Your task to perform on an android device: turn off translation in the chrome app Image 0: 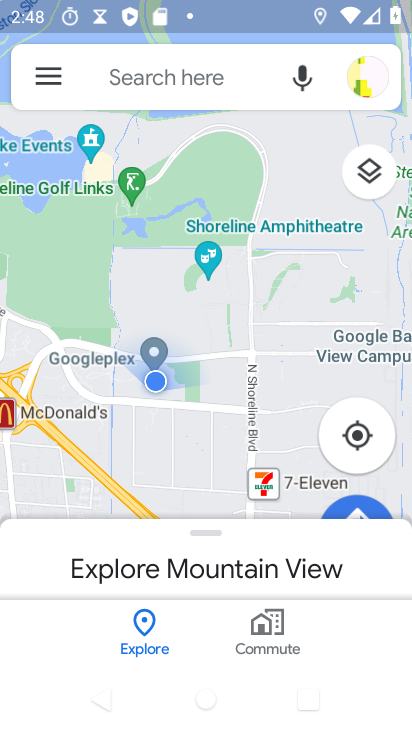
Step 0: press home button
Your task to perform on an android device: turn off translation in the chrome app Image 1: 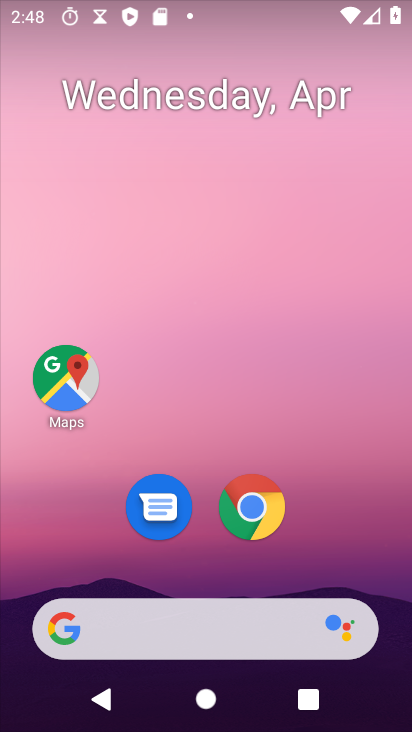
Step 1: click (256, 513)
Your task to perform on an android device: turn off translation in the chrome app Image 2: 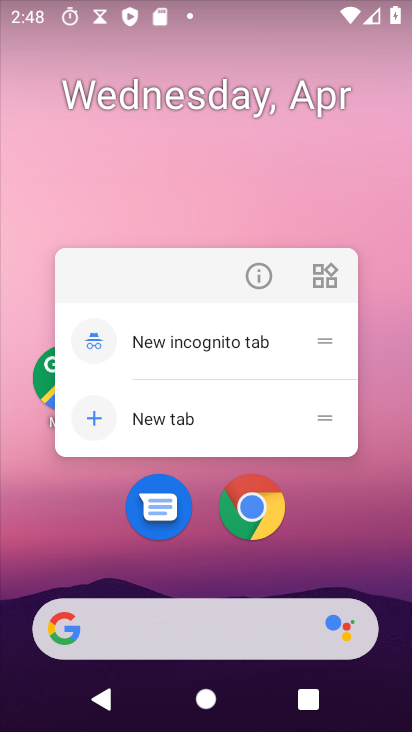
Step 2: click (254, 507)
Your task to perform on an android device: turn off translation in the chrome app Image 3: 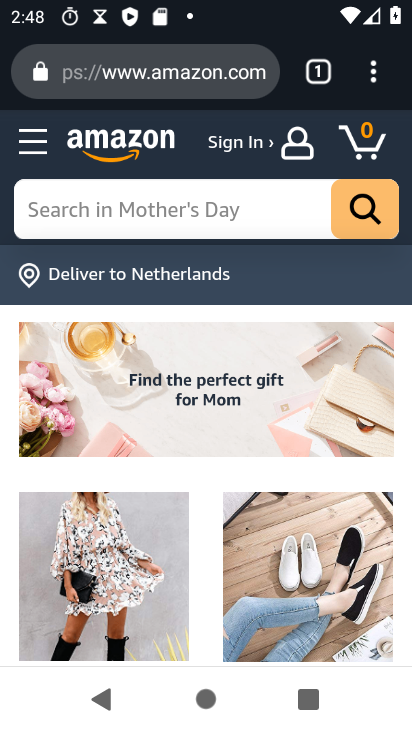
Step 3: drag from (374, 71) to (114, 509)
Your task to perform on an android device: turn off translation in the chrome app Image 4: 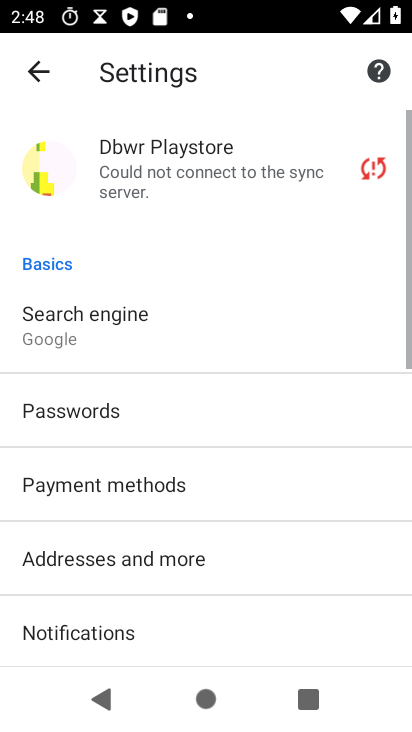
Step 4: drag from (228, 572) to (198, 200)
Your task to perform on an android device: turn off translation in the chrome app Image 5: 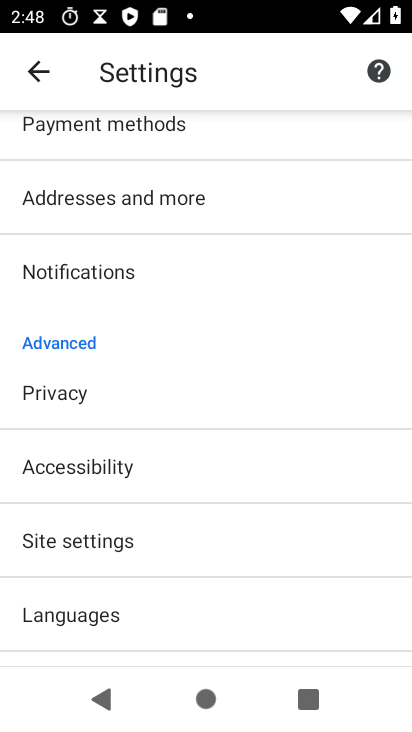
Step 5: click (82, 623)
Your task to perform on an android device: turn off translation in the chrome app Image 6: 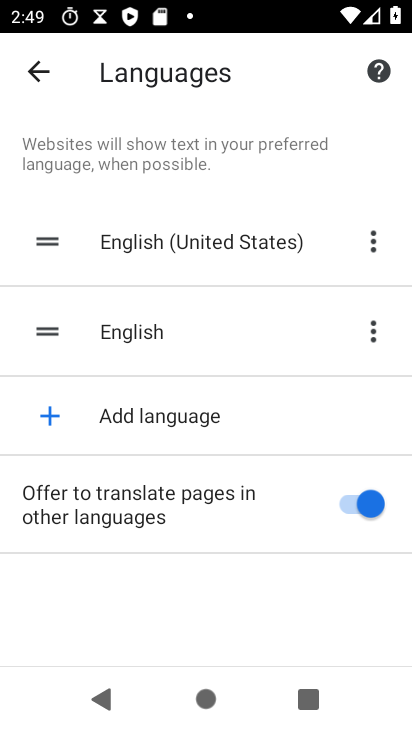
Step 6: click (368, 503)
Your task to perform on an android device: turn off translation in the chrome app Image 7: 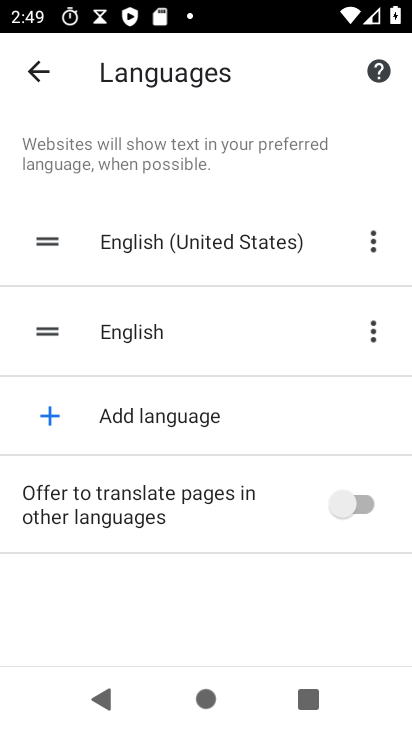
Step 7: task complete